Your task to perform on an android device: Open Youtube and go to the subscriptions tab Image 0: 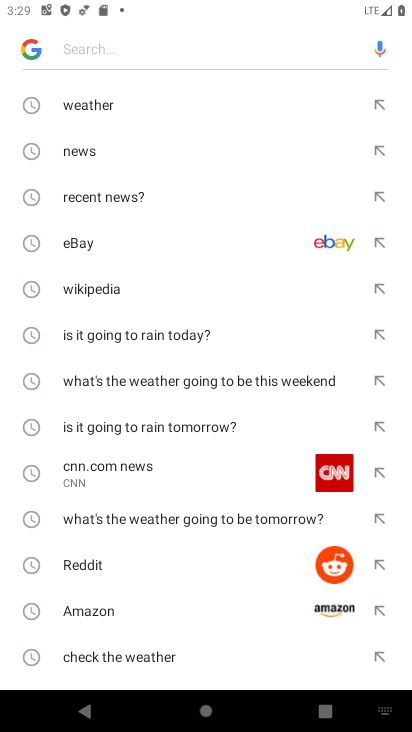
Step 0: press home button
Your task to perform on an android device: Open Youtube and go to the subscriptions tab Image 1: 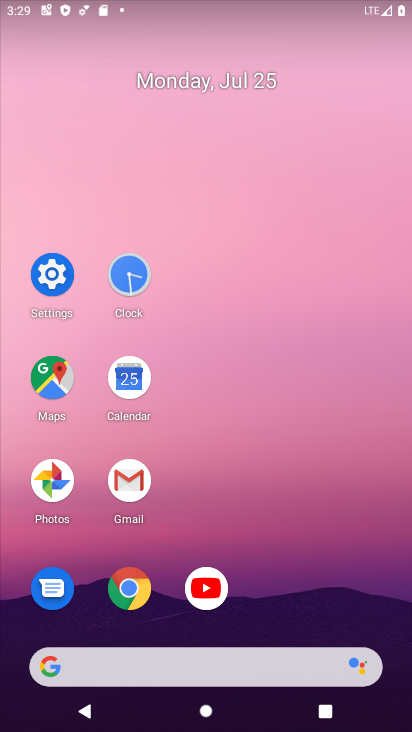
Step 1: click (213, 594)
Your task to perform on an android device: Open Youtube and go to the subscriptions tab Image 2: 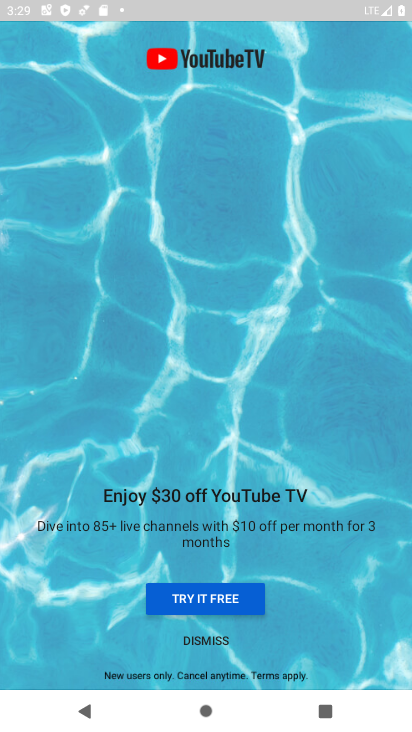
Step 2: click (218, 638)
Your task to perform on an android device: Open Youtube and go to the subscriptions tab Image 3: 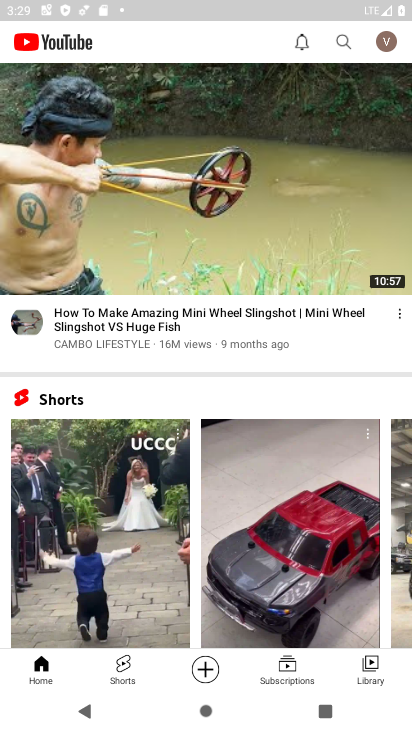
Step 3: click (282, 667)
Your task to perform on an android device: Open Youtube and go to the subscriptions tab Image 4: 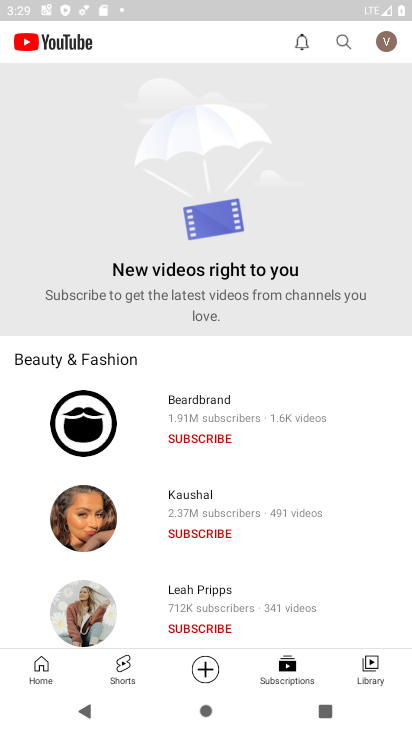
Step 4: task complete